Your task to perform on an android device: Go to Google maps Image 0: 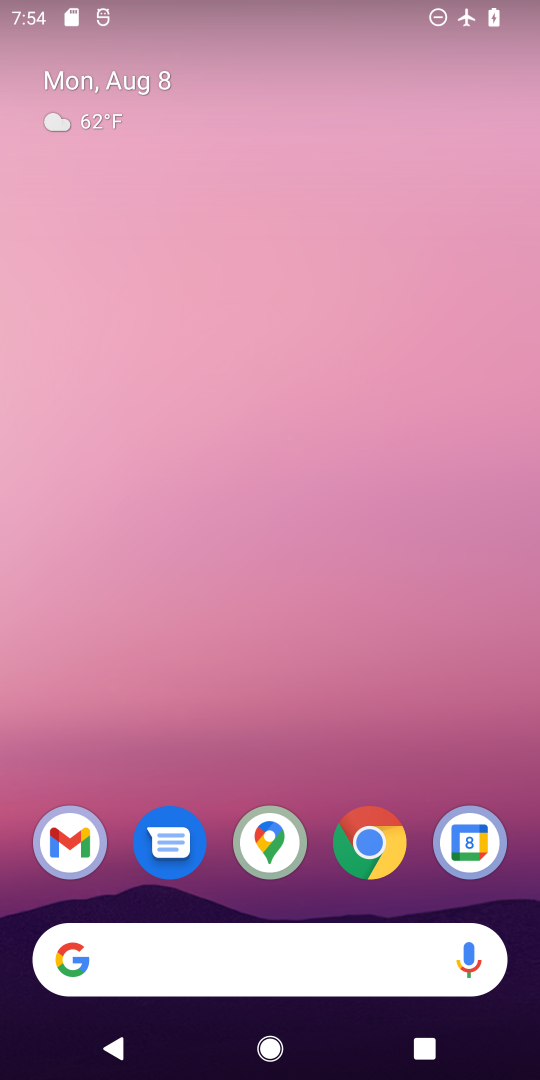
Step 0: click (295, 841)
Your task to perform on an android device: Go to Google maps Image 1: 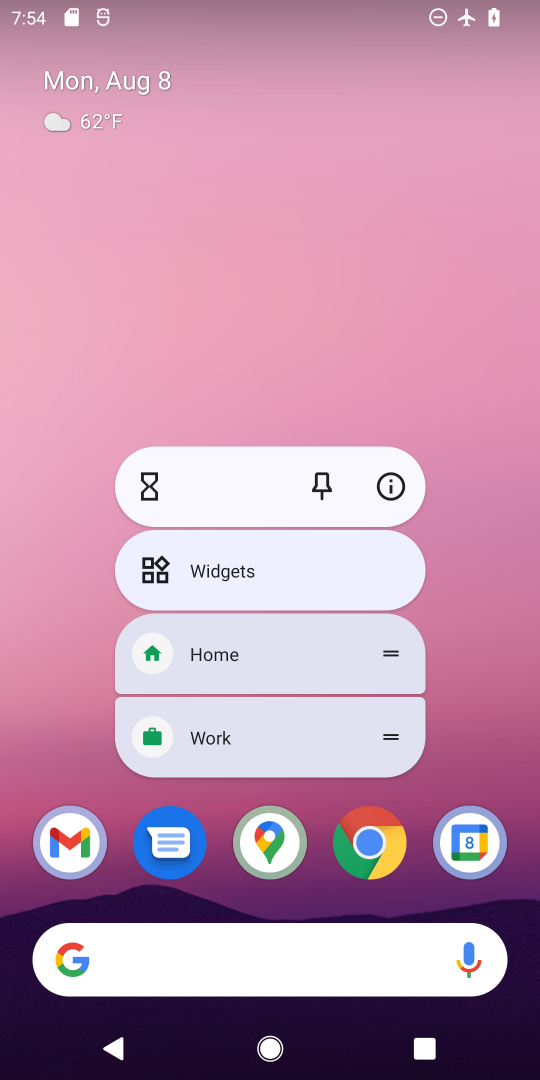
Step 1: click (238, 851)
Your task to perform on an android device: Go to Google maps Image 2: 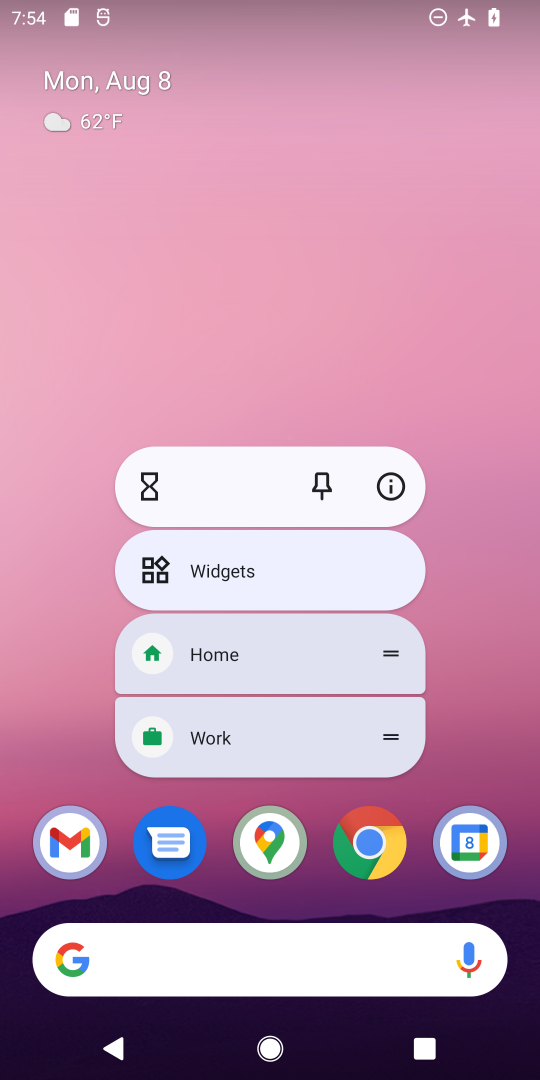
Step 2: click (259, 831)
Your task to perform on an android device: Go to Google maps Image 3: 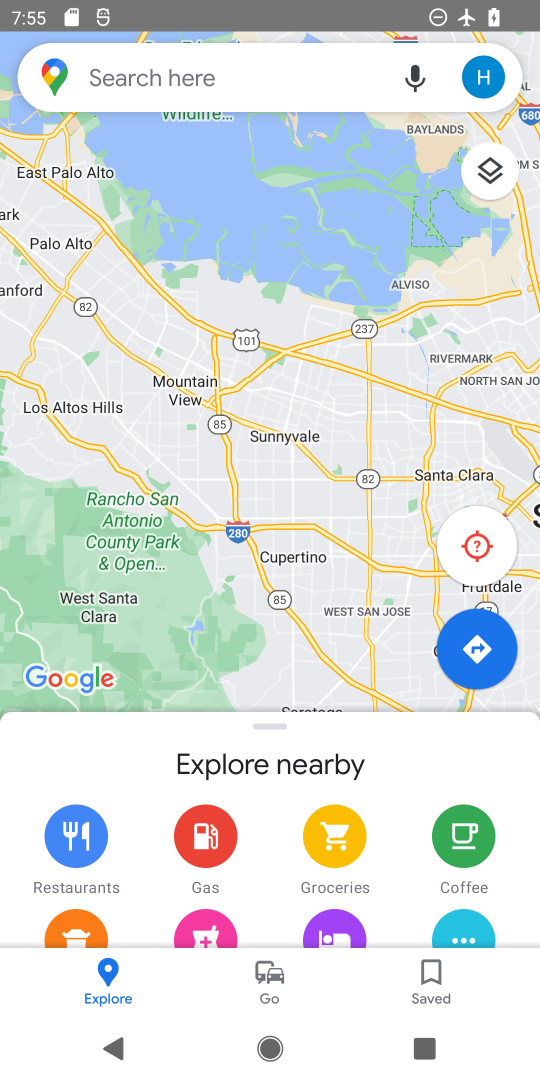
Step 3: task complete